Your task to perform on an android device: open chrome and create a bookmark for the current page Image 0: 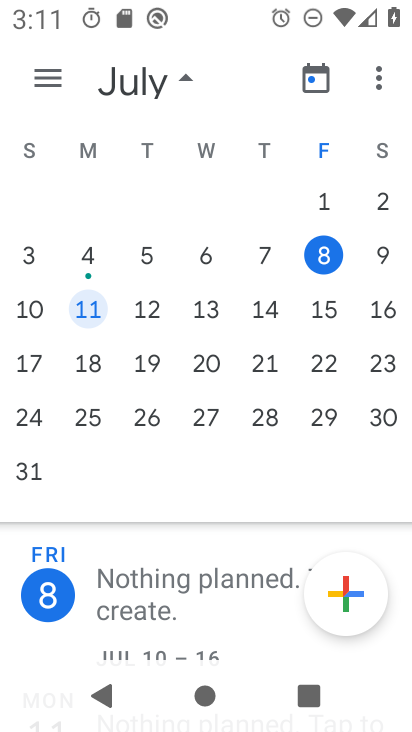
Step 0: press home button
Your task to perform on an android device: open chrome and create a bookmark for the current page Image 1: 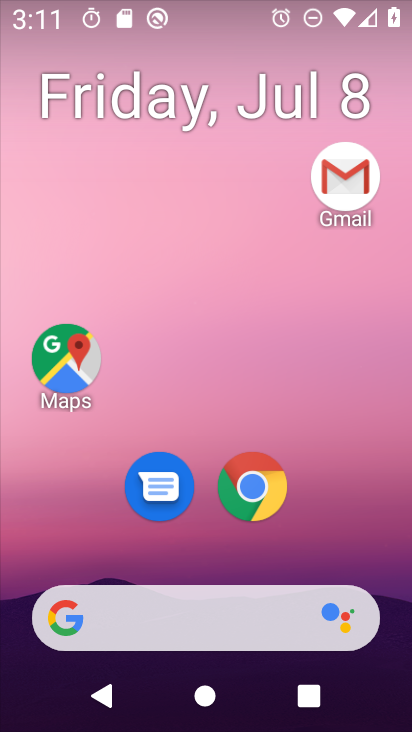
Step 1: drag from (339, 499) to (354, 109)
Your task to perform on an android device: open chrome and create a bookmark for the current page Image 2: 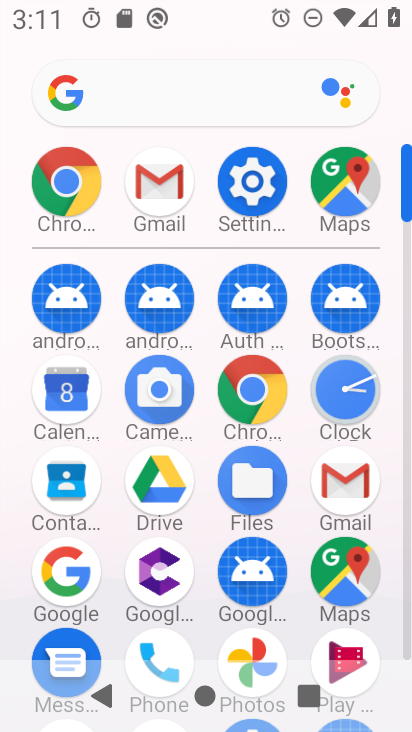
Step 2: click (252, 390)
Your task to perform on an android device: open chrome and create a bookmark for the current page Image 3: 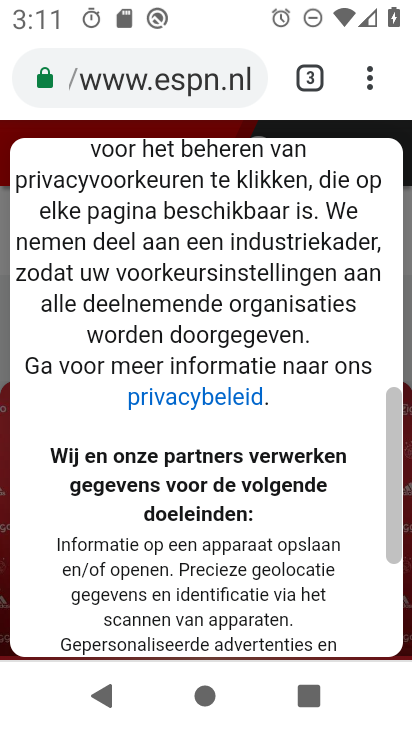
Step 3: click (371, 82)
Your task to perform on an android device: open chrome and create a bookmark for the current page Image 4: 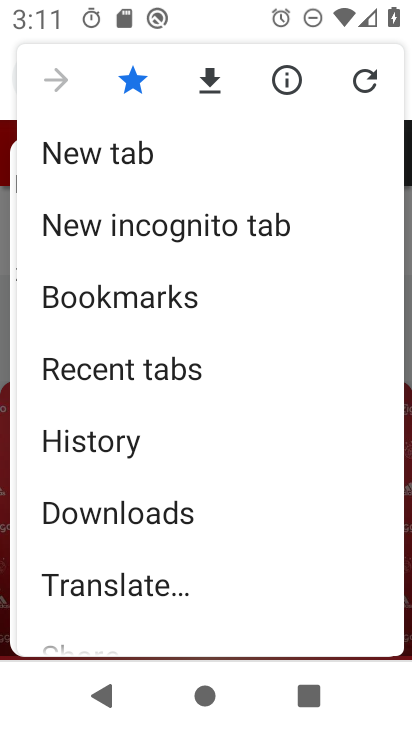
Step 4: task complete